Your task to perform on an android device: turn pop-ups off in chrome Image 0: 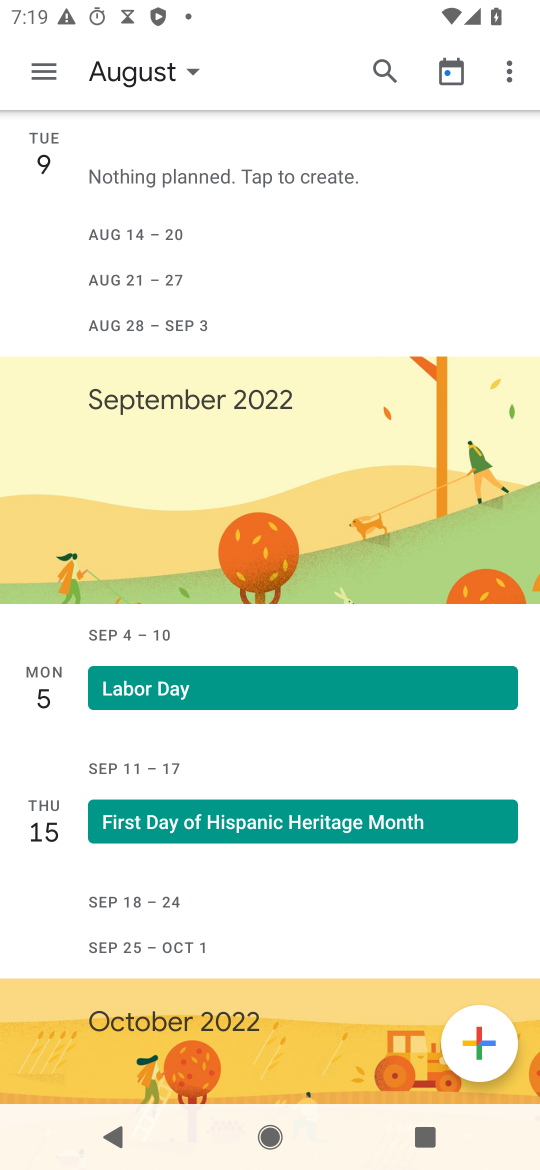
Step 0: press home button
Your task to perform on an android device: turn pop-ups off in chrome Image 1: 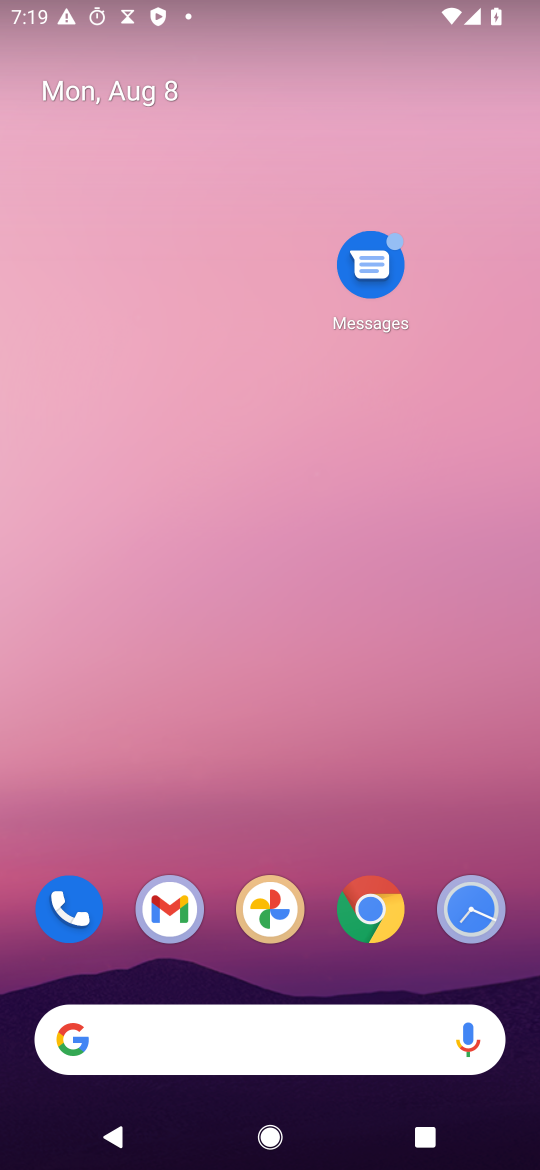
Step 1: click (370, 917)
Your task to perform on an android device: turn pop-ups off in chrome Image 2: 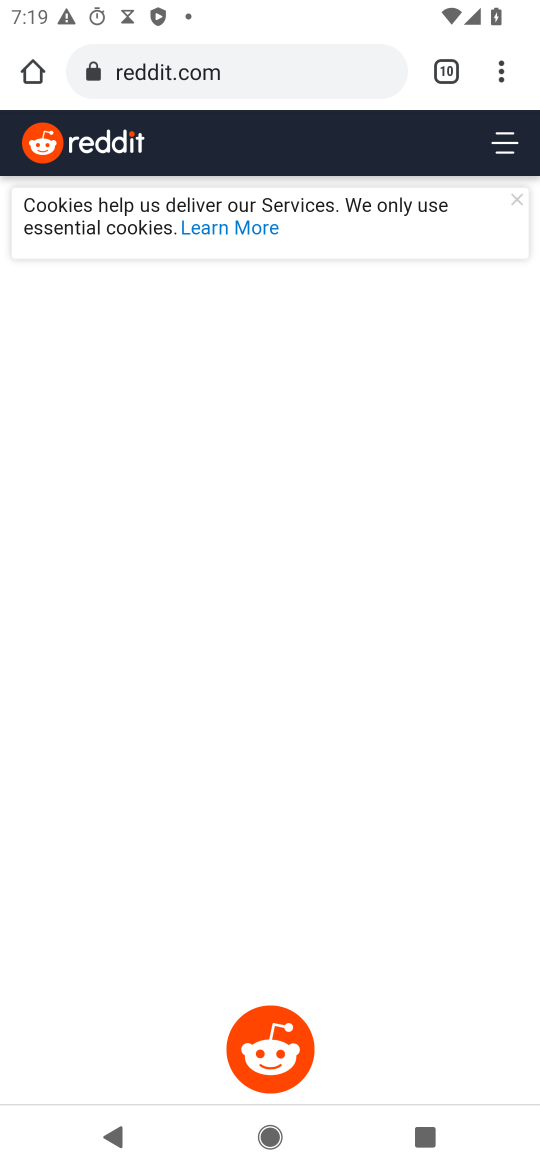
Step 2: drag from (501, 68) to (337, 991)
Your task to perform on an android device: turn pop-ups off in chrome Image 3: 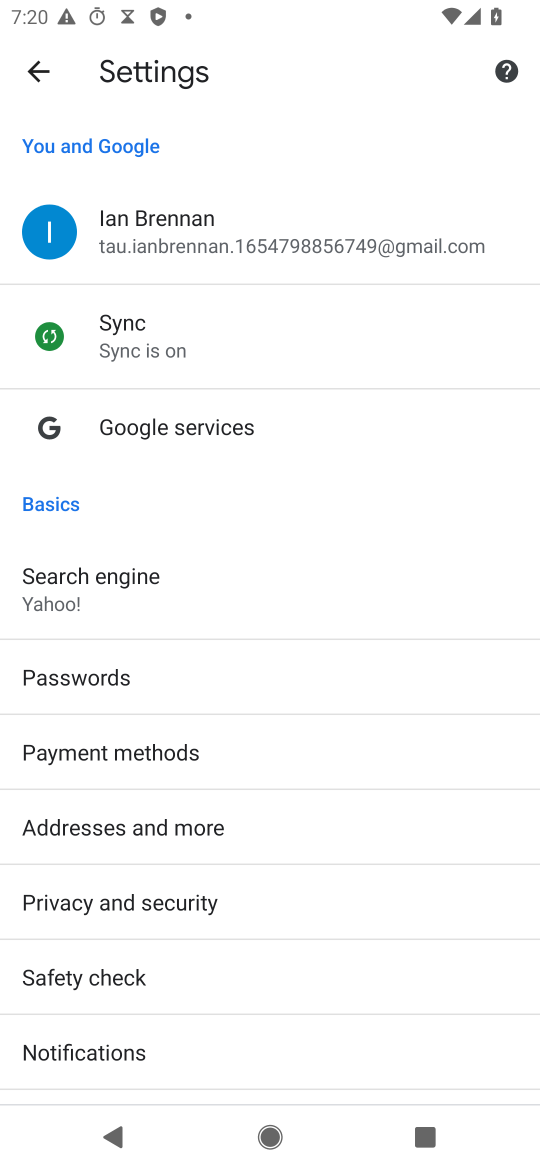
Step 3: drag from (274, 969) to (386, 322)
Your task to perform on an android device: turn pop-ups off in chrome Image 4: 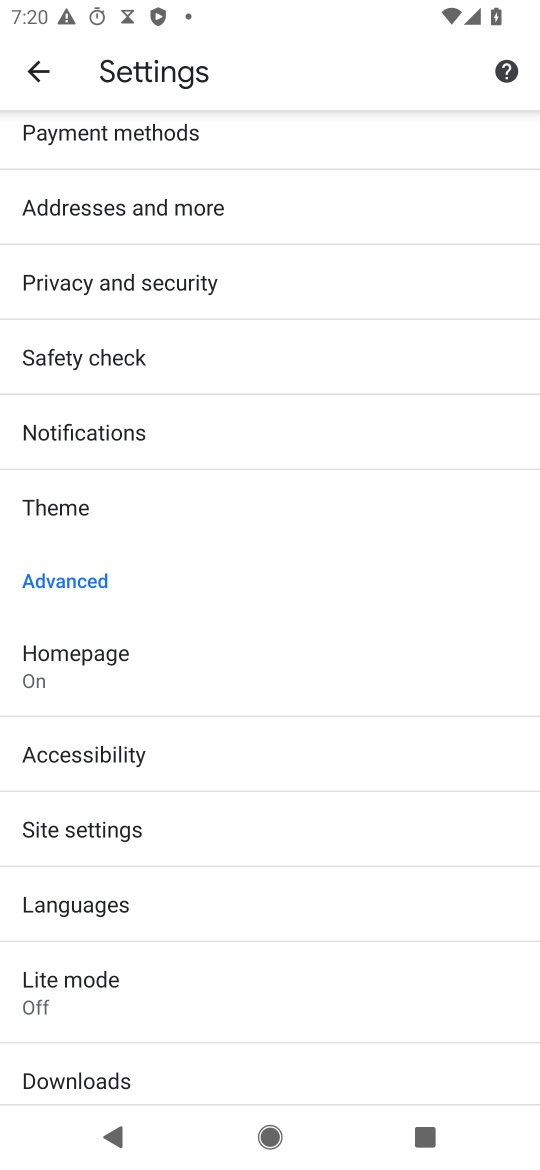
Step 4: click (105, 829)
Your task to perform on an android device: turn pop-ups off in chrome Image 5: 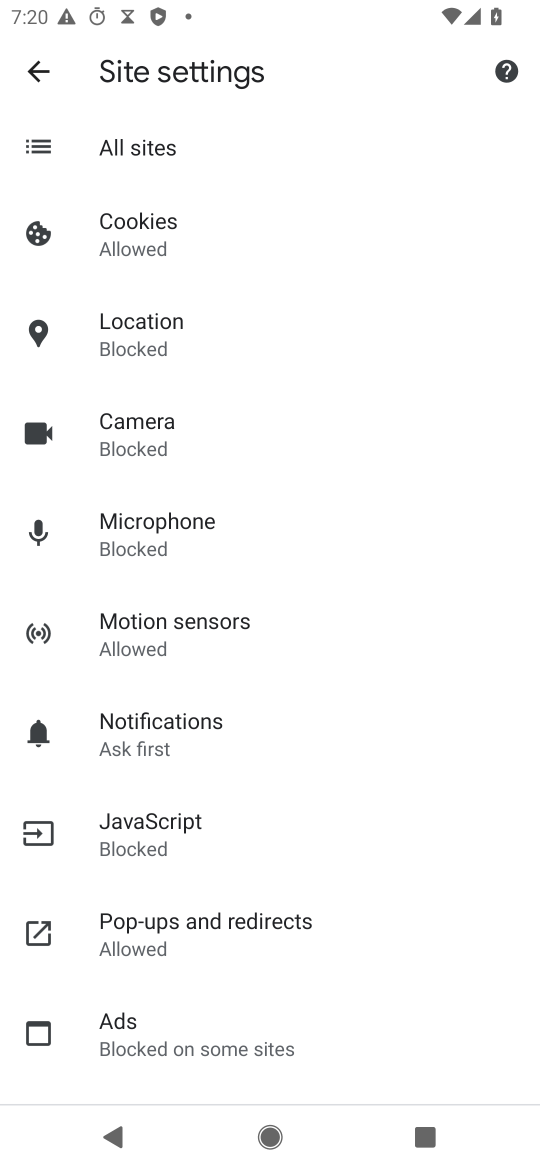
Step 5: click (187, 935)
Your task to perform on an android device: turn pop-ups off in chrome Image 6: 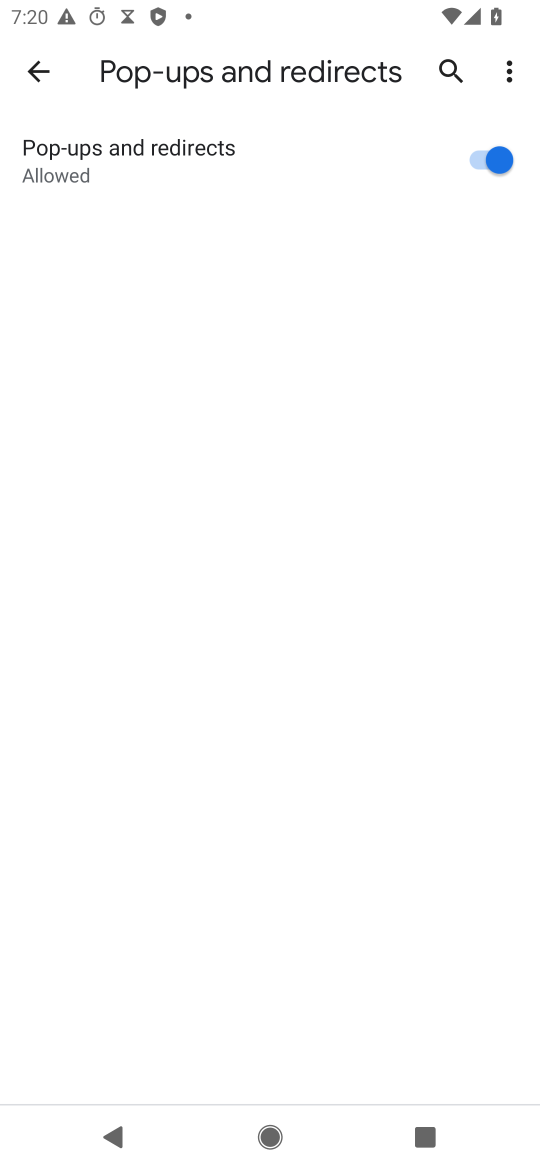
Step 6: click (485, 162)
Your task to perform on an android device: turn pop-ups off in chrome Image 7: 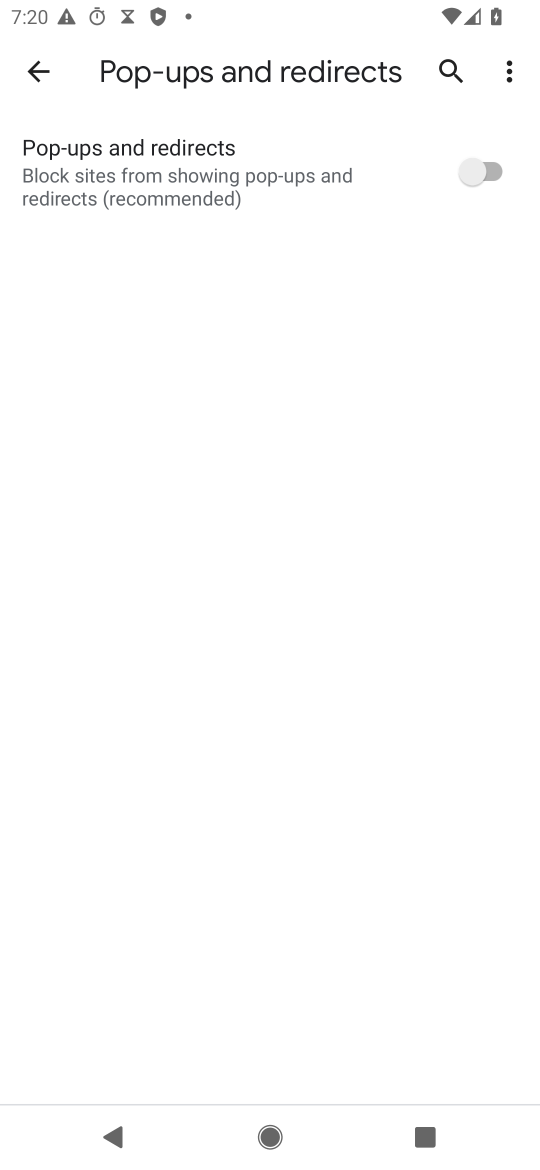
Step 7: task complete